Your task to perform on an android device: open chrome privacy settings Image 0: 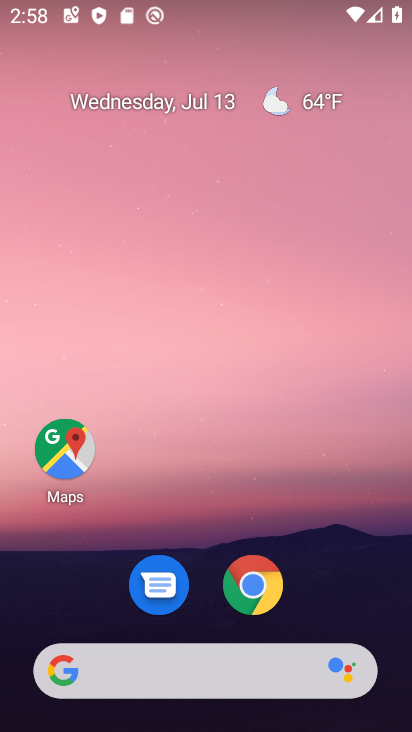
Step 0: click (243, 597)
Your task to perform on an android device: open chrome privacy settings Image 1: 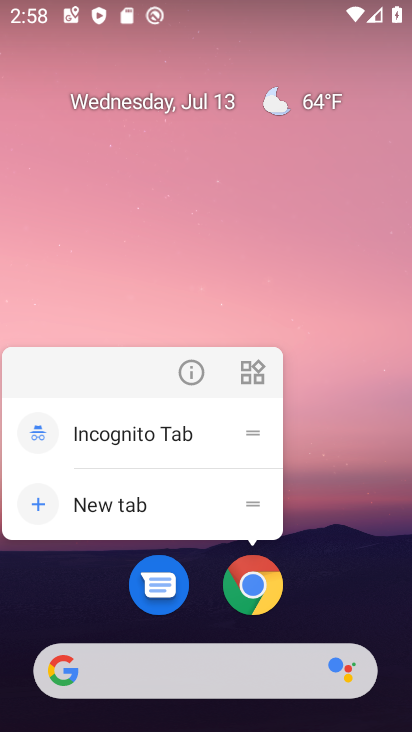
Step 1: click (267, 586)
Your task to perform on an android device: open chrome privacy settings Image 2: 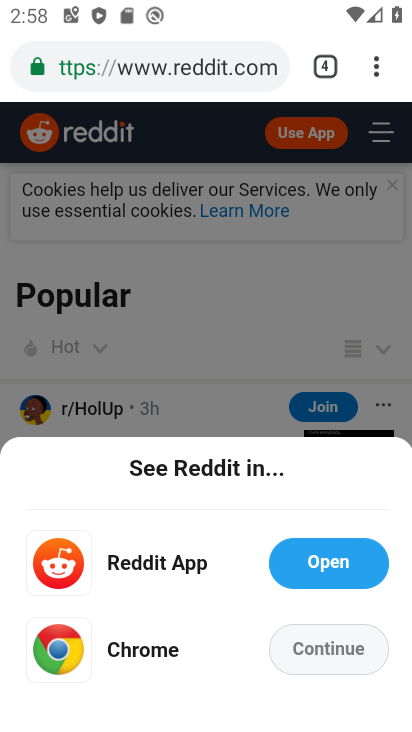
Step 2: drag from (374, 73) to (198, 586)
Your task to perform on an android device: open chrome privacy settings Image 3: 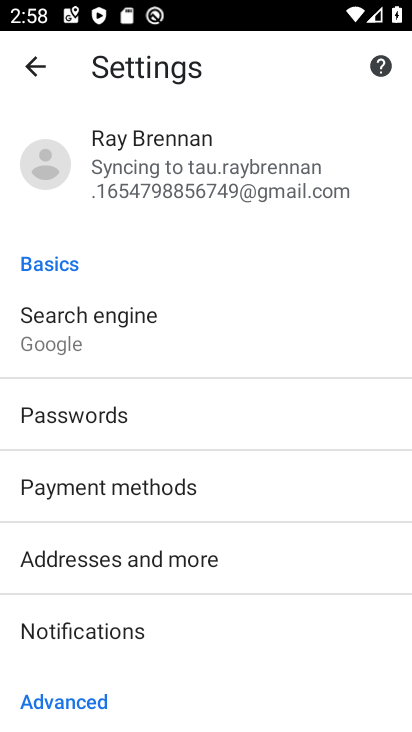
Step 3: drag from (164, 653) to (325, 187)
Your task to perform on an android device: open chrome privacy settings Image 4: 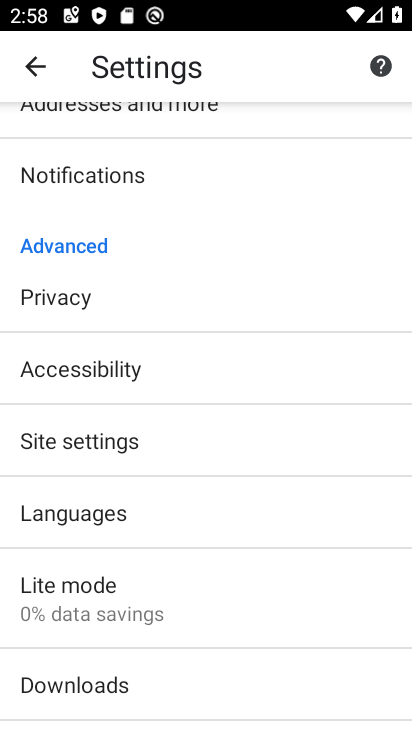
Step 4: click (76, 293)
Your task to perform on an android device: open chrome privacy settings Image 5: 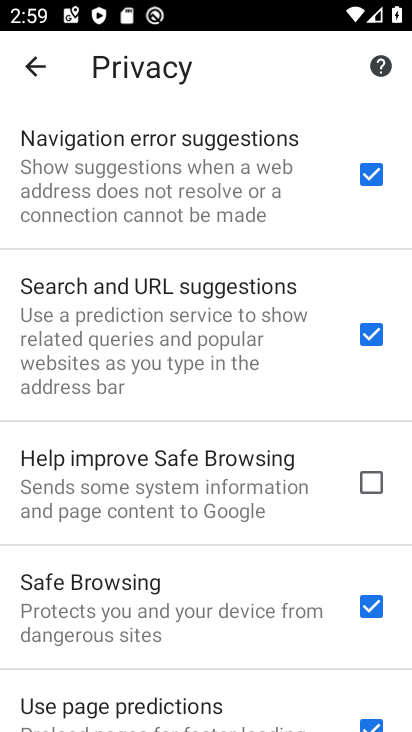
Step 5: task complete